Your task to perform on an android device: refresh tabs in the chrome app Image 0: 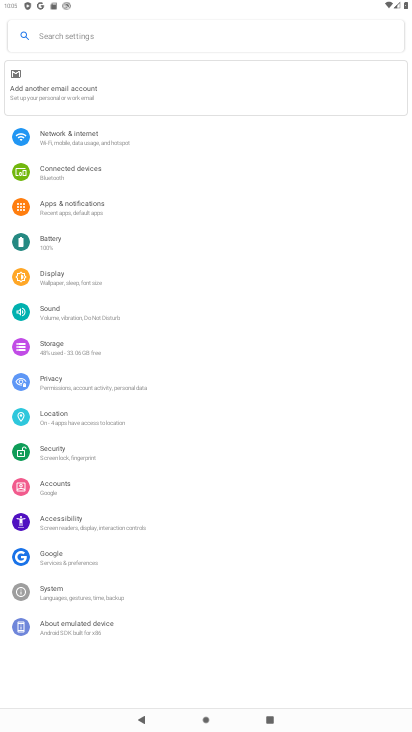
Step 0: press home button
Your task to perform on an android device: refresh tabs in the chrome app Image 1: 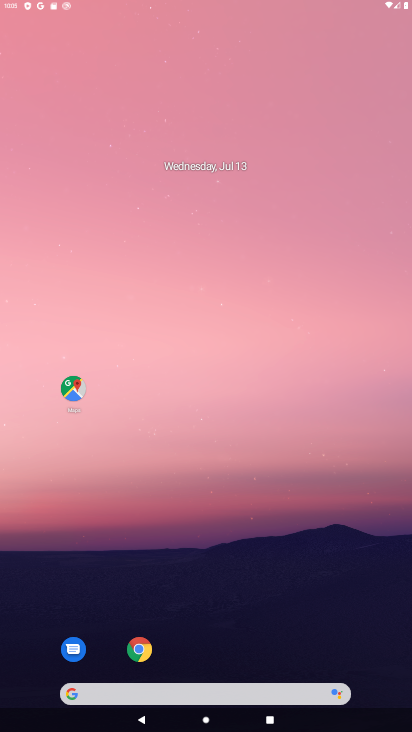
Step 1: drag from (214, 651) to (294, 332)
Your task to perform on an android device: refresh tabs in the chrome app Image 2: 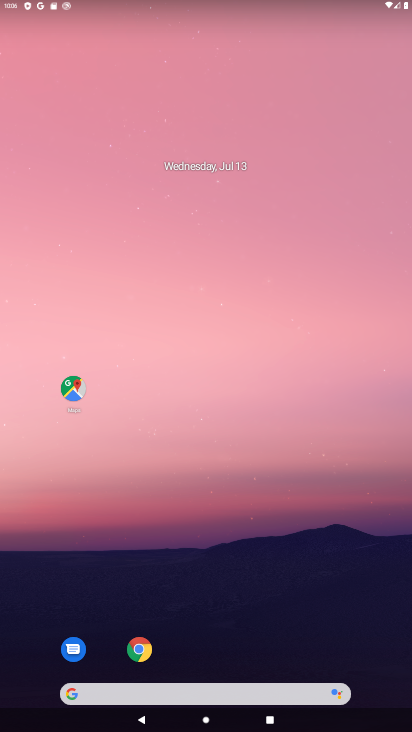
Step 2: drag from (214, 658) to (262, 193)
Your task to perform on an android device: refresh tabs in the chrome app Image 3: 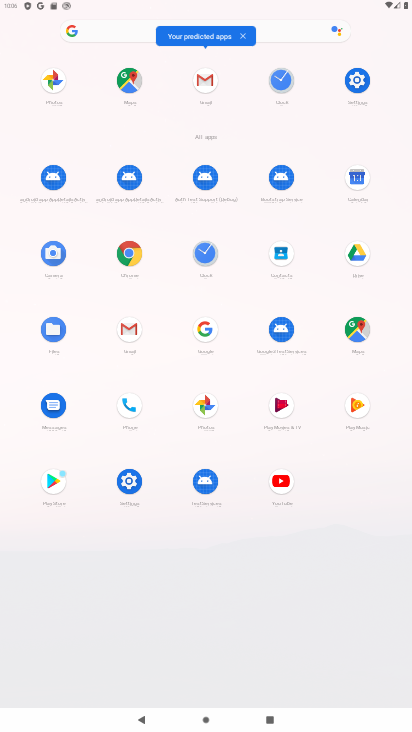
Step 3: click (123, 254)
Your task to perform on an android device: refresh tabs in the chrome app Image 4: 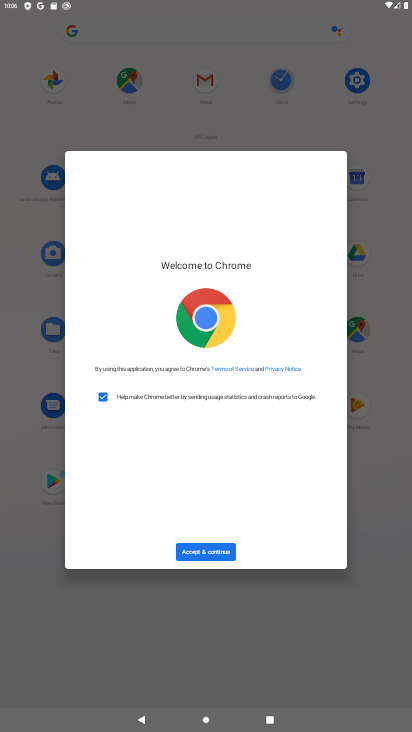
Step 4: click (211, 548)
Your task to perform on an android device: refresh tabs in the chrome app Image 5: 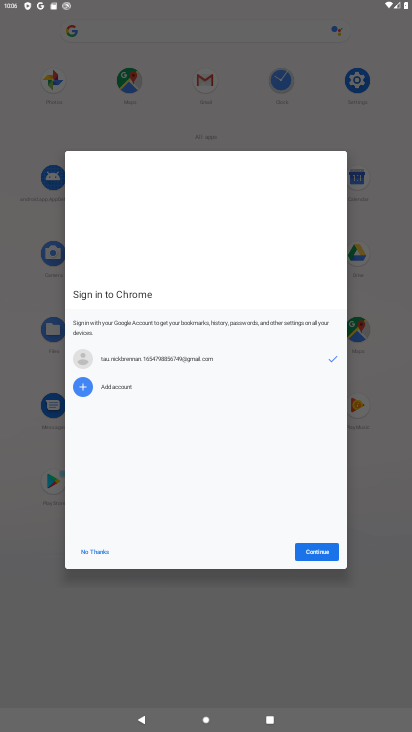
Step 5: click (211, 548)
Your task to perform on an android device: refresh tabs in the chrome app Image 6: 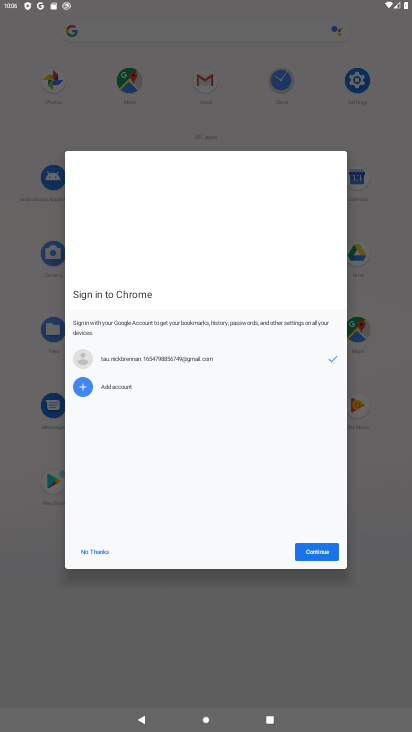
Step 6: click (302, 556)
Your task to perform on an android device: refresh tabs in the chrome app Image 7: 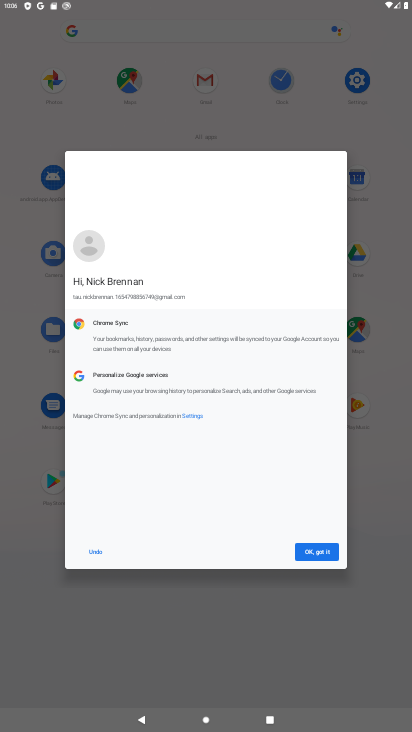
Step 7: click (314, 548)
Your task to perform on an android device: refresh tabs in the chrome app Image 8: 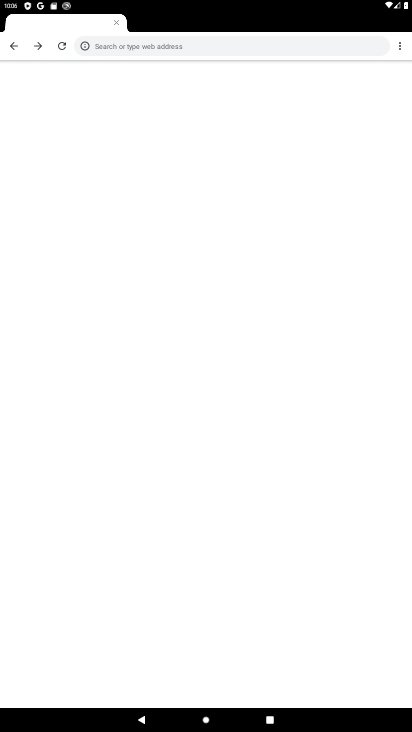
Step 8: click (65, 40)
Your task to perform on an android device: refresh tabs in the chrome app Image 9: 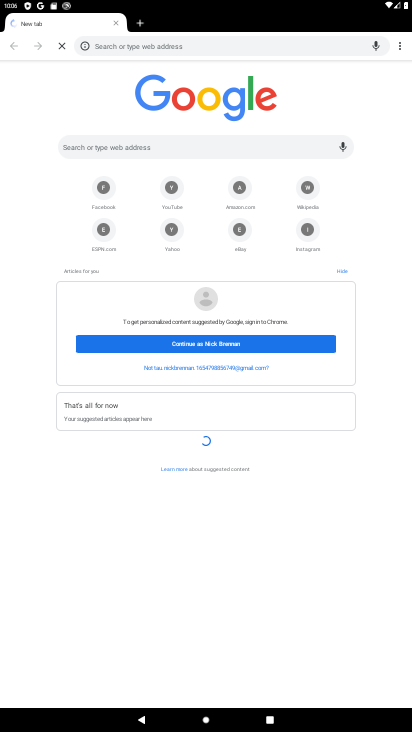
Step 9: task complete